Your task to perform on an android device: Search for "beats solo 3" on amazon.com, select the first entry, and add it to the cart. Image 0: 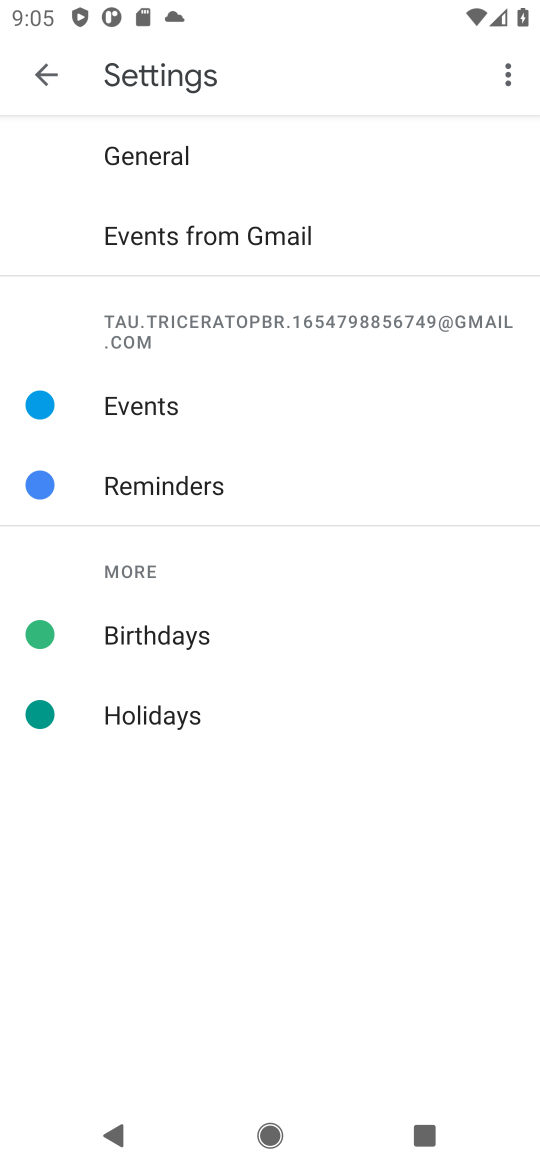
Step 0: press home button
Your task to perform on an android device: Search for "beats solo 3" on amazon.com, select the first entry, and add it to the cart. Image 1: 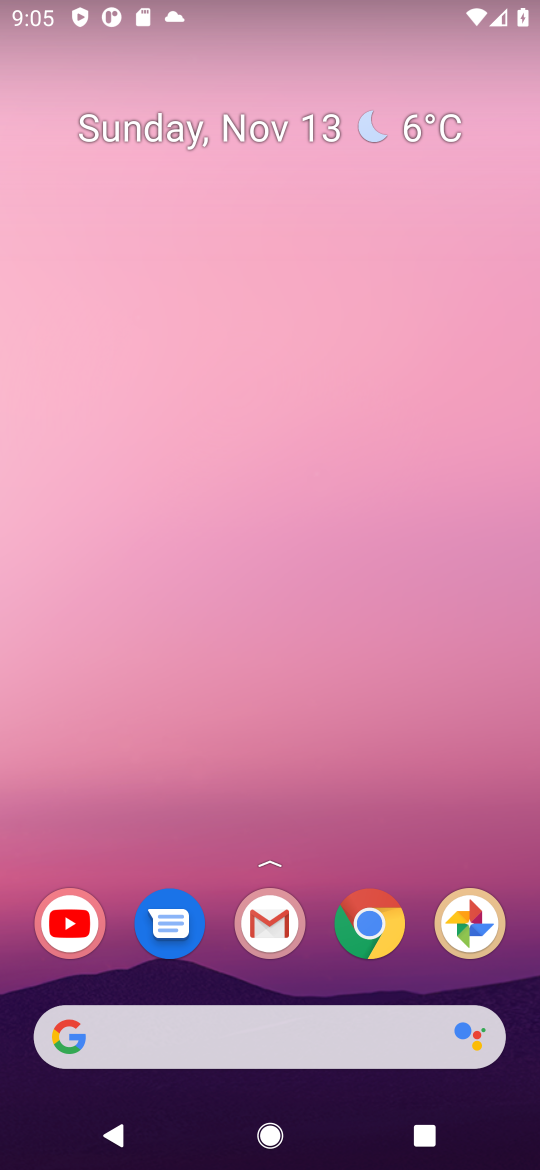
Step 1: click (372, 937)
Your task to perform on an android device: Search for "beats solo 3" on amazon.com, select the first entry, and add it to the cart. Image 2: 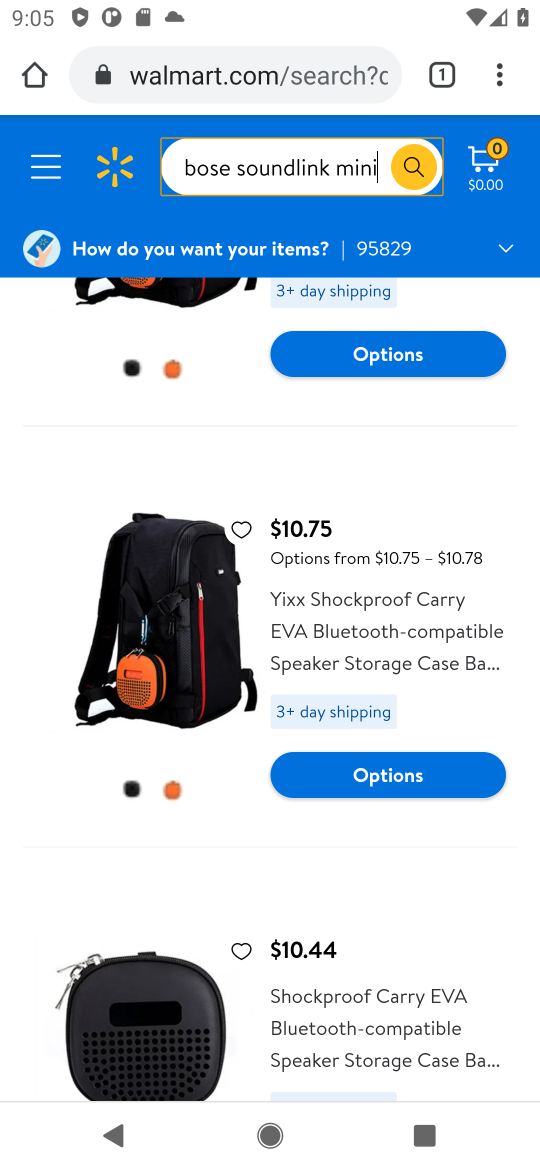
Step 2: click (349, 68)
Your task to perform on an android device: Search for "beats solo 3" on amazon.com, select the first entry, and add it to the cart. Image 3: 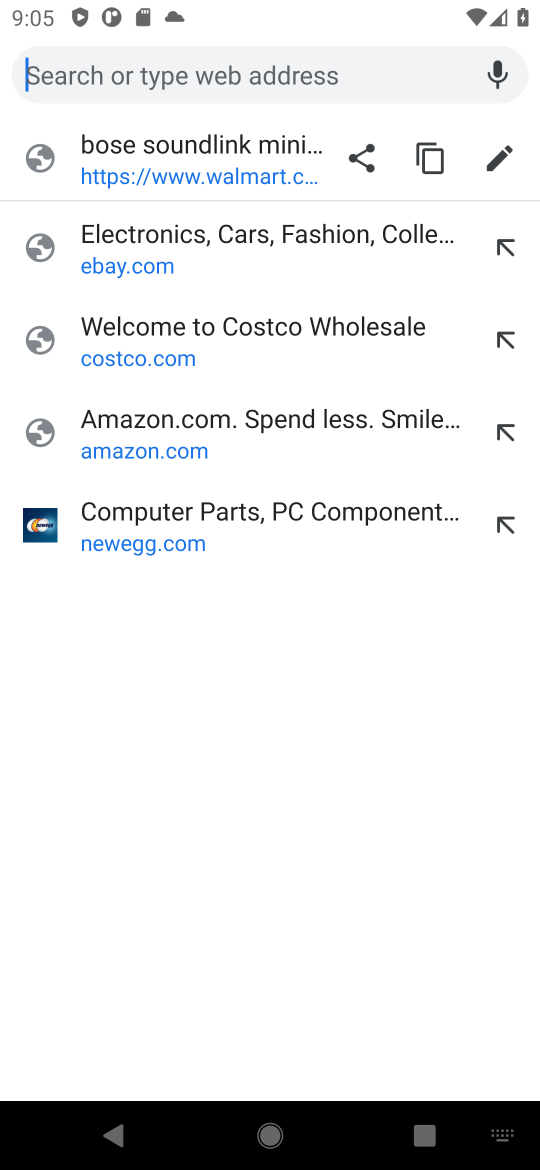
Step 3: click (185, 413)
Your task to perform on an android device: Search for "beats solo 3" on amazon.com, select the first entry, and add it to the cart. Image 4: 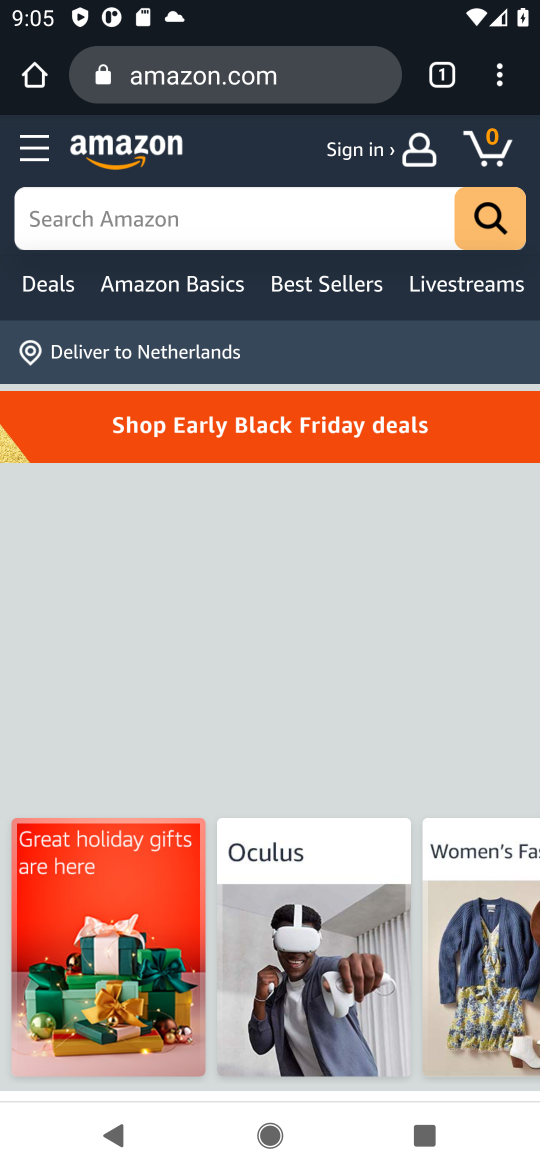
Step 4: click (253, 225)
Your task to perform on an android device: Search for "beats solo 3" on amazon.com, select the first entry, and add it to the cart. Image 5: 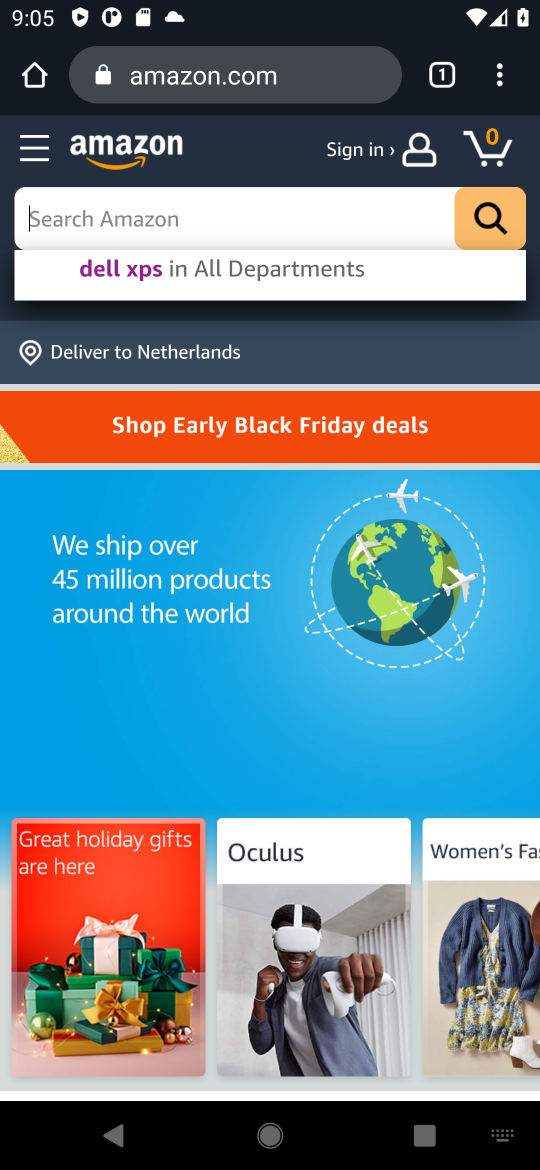
Step 5: type "beats solo 3"
Your task to perform on an android device: Search for "beats solo 3" on amazon.com, select the first entry, and add it to the cart. Image 6: 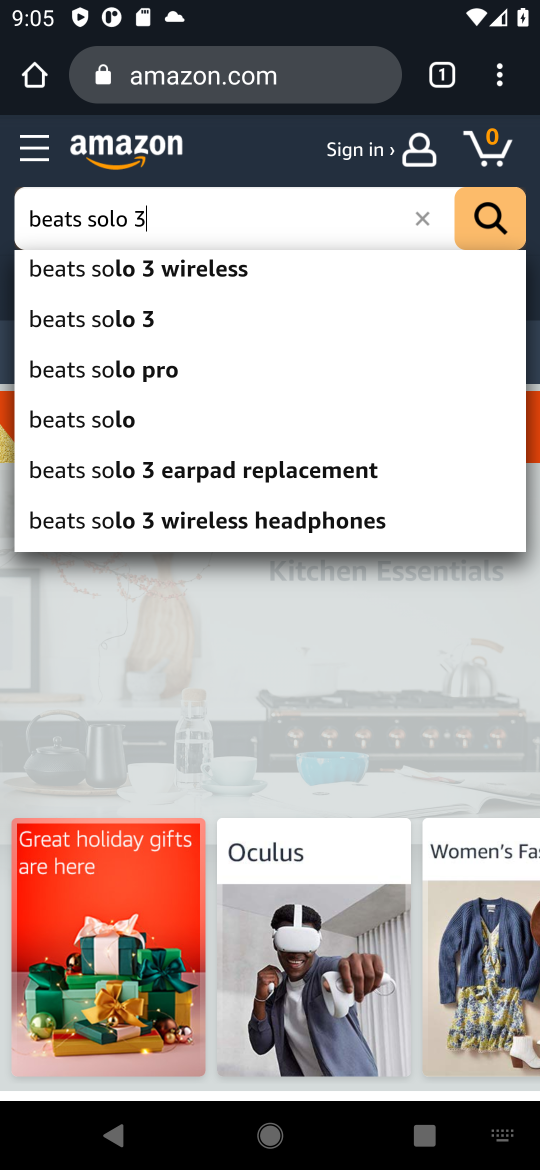
Step 6: press enter
Your task to perform on an android device: Search for "beats solo 3" on amazon.com, select the first entry, and add it to the cart. Image 7: 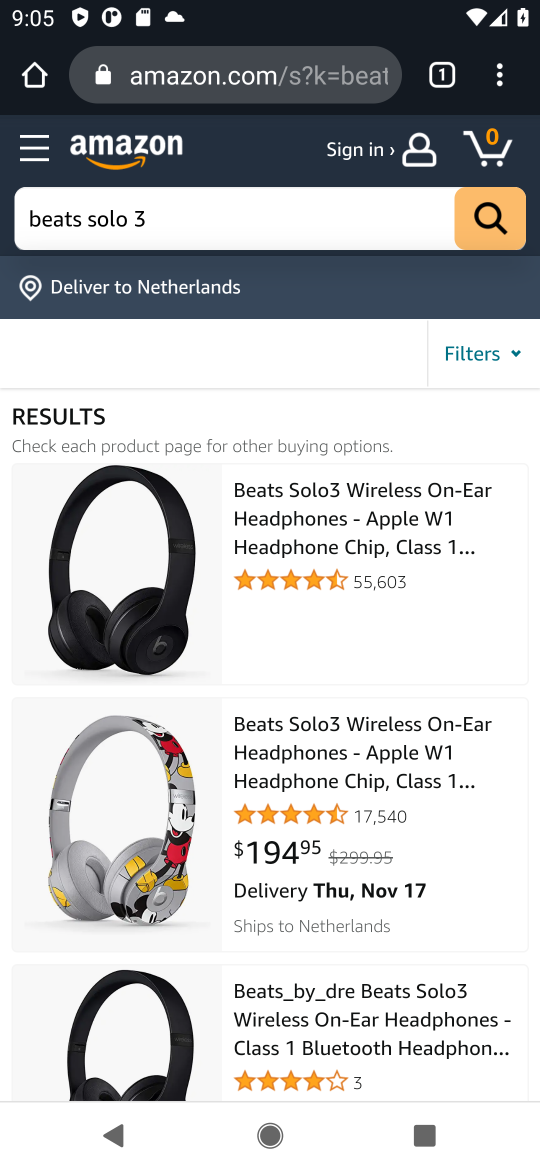
Step 7: click (136, 540)
Your task to perform on an android device: Search for "beats solo 3" on amazon.com, select the first entry, and add it to the cart. Image 8: 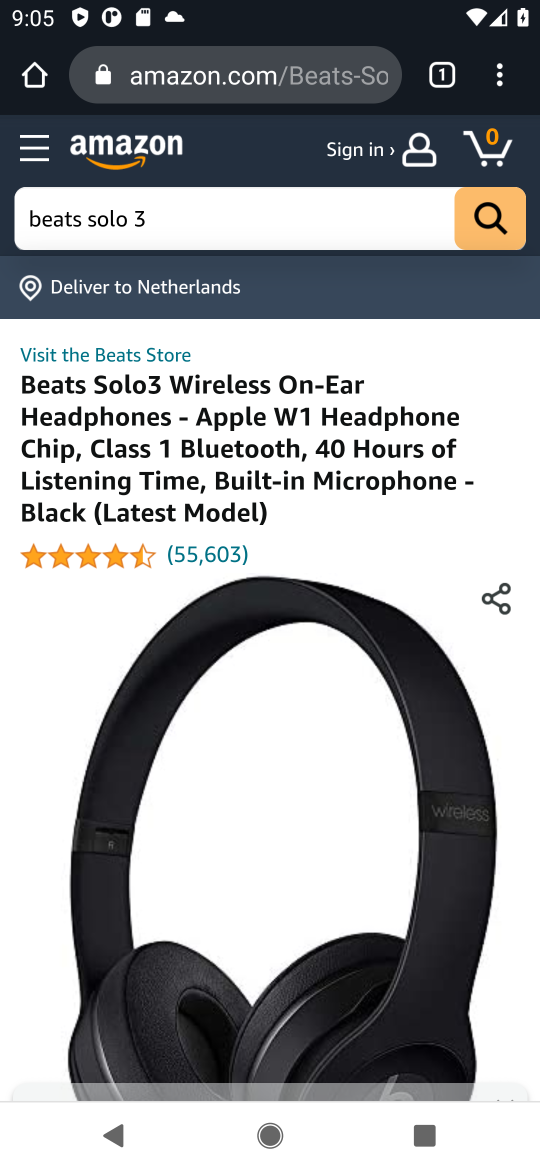
Step 8: drag from (392, 789) to (450, 173)
Your task to perform on an android device: Search for "beats solo 3" on amazon.com, select the first entry, and add it to the cart. Image 9: 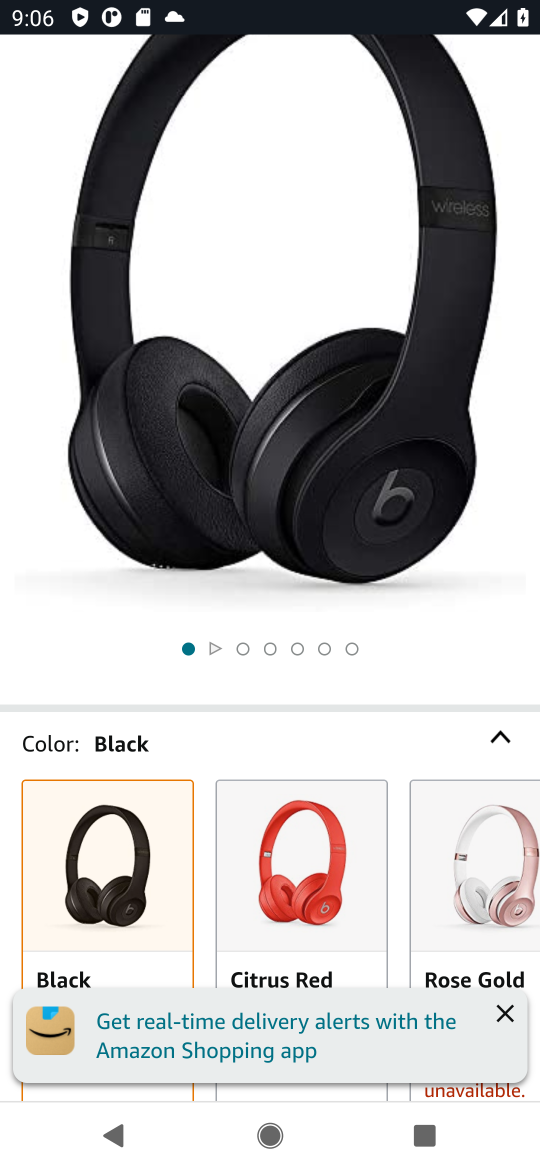
Step 9: drag from (402, 627) to (469, 131)
Your task to perform on an android device: Search for "beats solo 3" on amazon.com, select the first entry, and add it to the cart. Image 10: 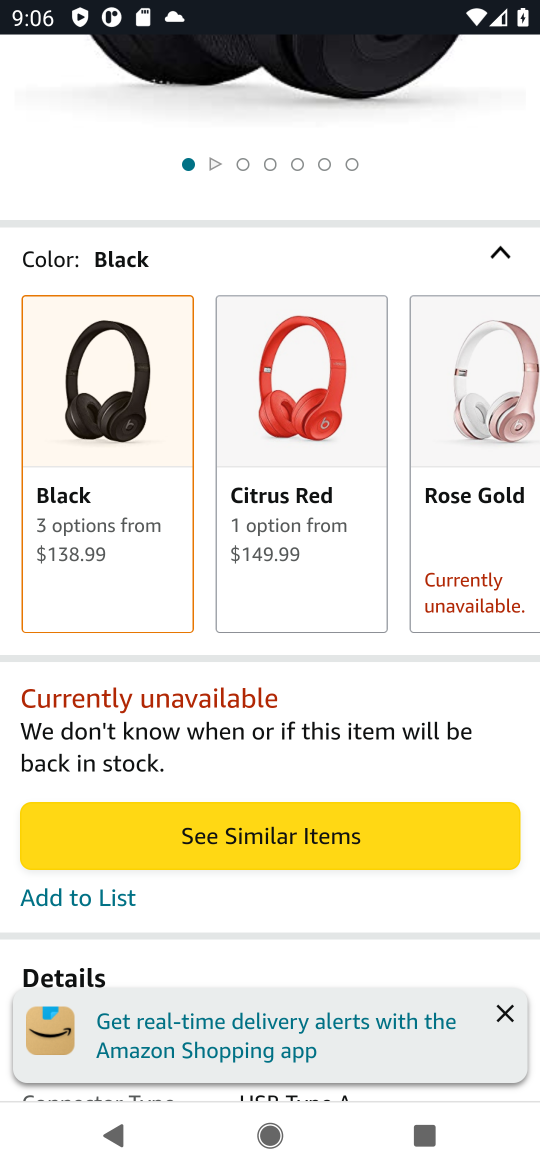
Step 10: press back button
Your task to perform on an android device: Search for "beats solo 3" on amazon.com, select the first entry, and add it to the cart. Image 11: 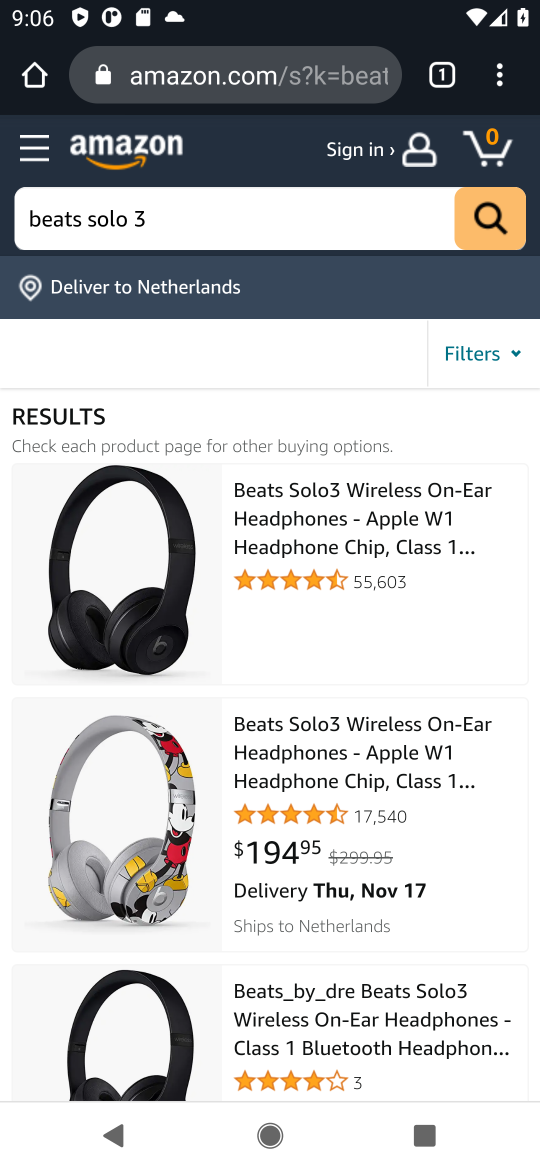
Step 11: click (134, 815)
Your task to perform on an android device: Search for "beats solo 3" on amazon.com, select the first entry, and add it to the cart. Image 12: 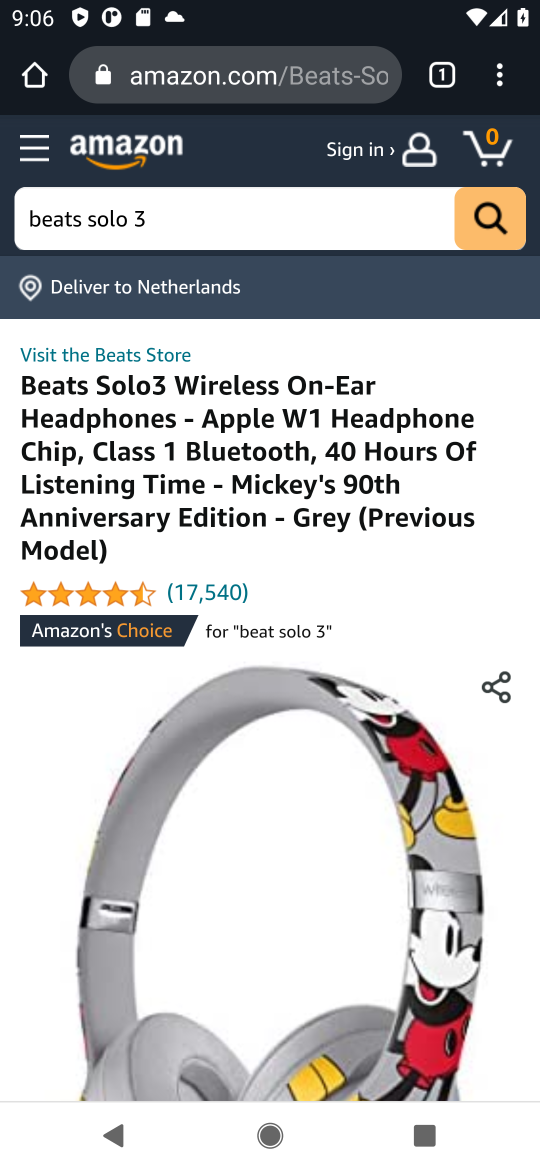
Step 12: drag from (354, 668) to (444, 208)
Your task to perform on an android device: Search for "beats solo 3" on amazon.com, select the first entry, and add it to the cart. Image 13: 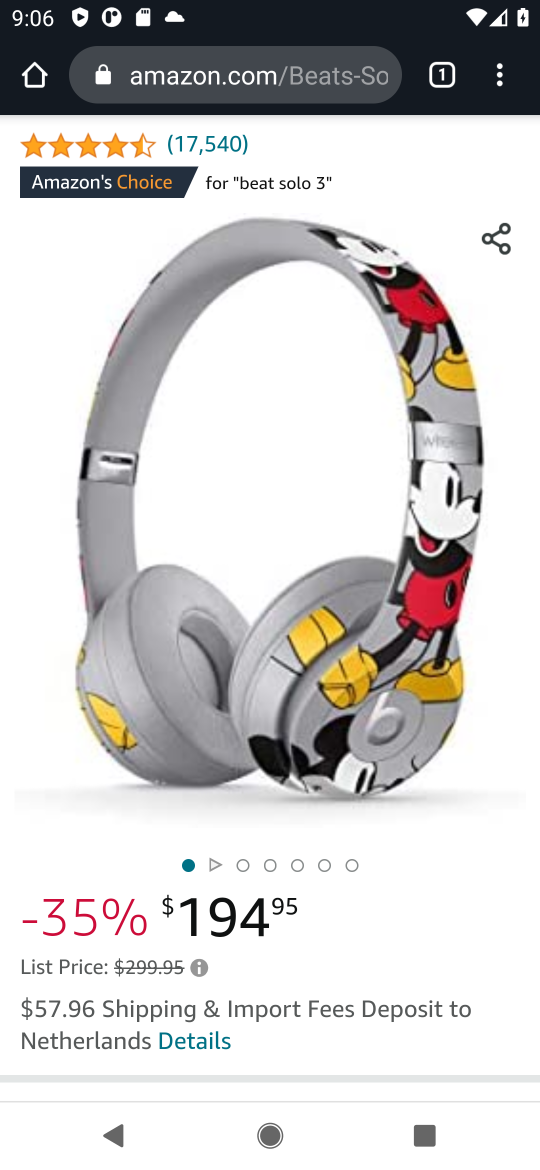
Step 13: drag from (413, 862) to (501, 312)
Your task to perform on an android device: Search for "beats solo 3" on amazon.com, select the first entry, and add it to the cart. Image 14: 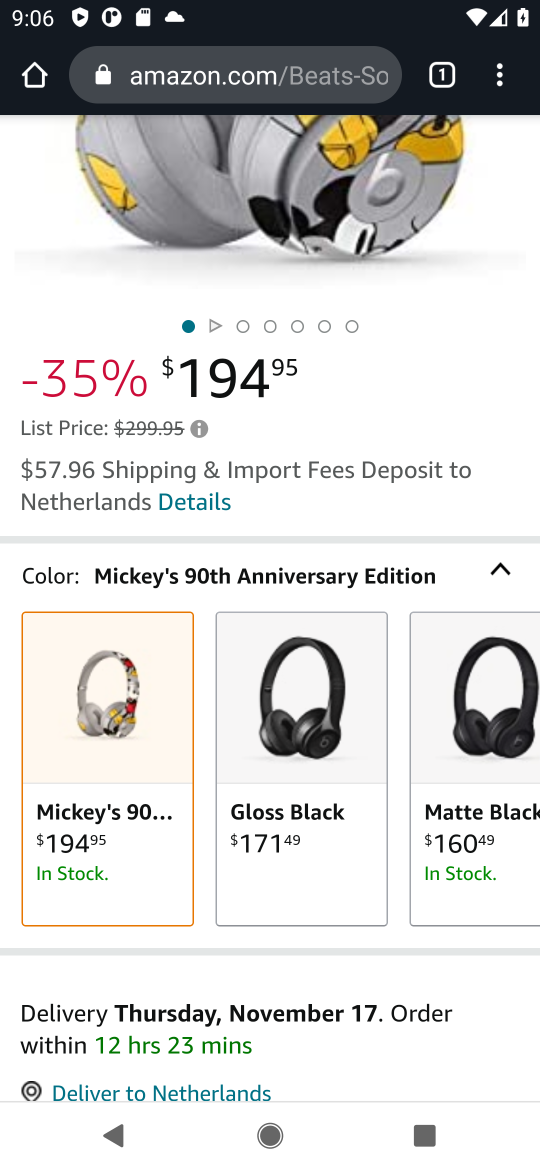
Step 14: drag from (408, 878) to (487, 271)
Your task to perform on an android device: Search for "beats solo 3" on amazon.com, select the first entry, and add it to the cart. Image 15: 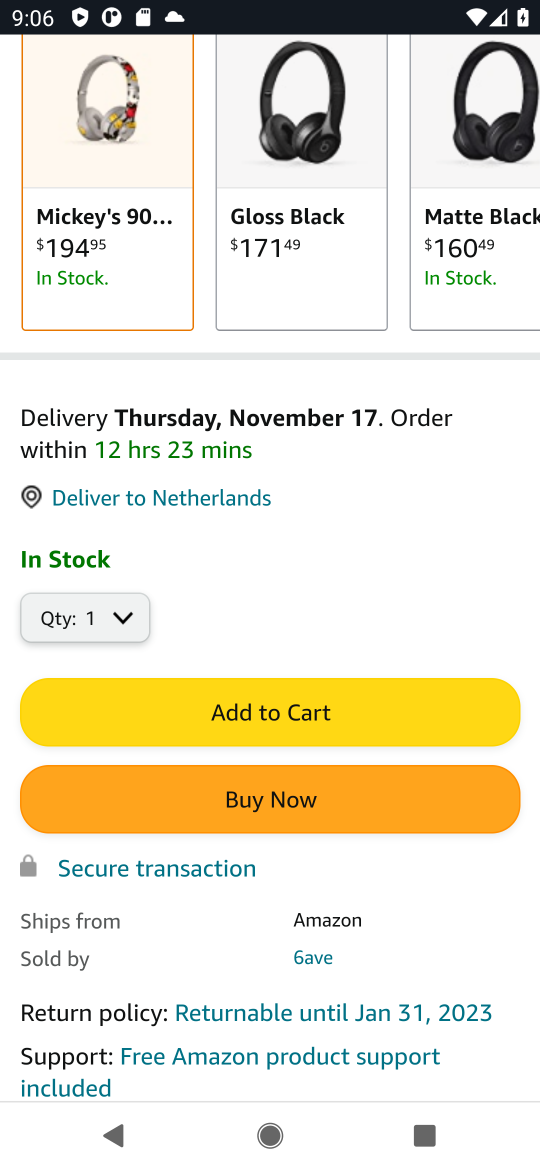
Step 15: click (285, 725)
Your task to perform on an android device: Search for "beats solo 3" on amazon.com, select the first entry, and add it to the cart. Image 16: 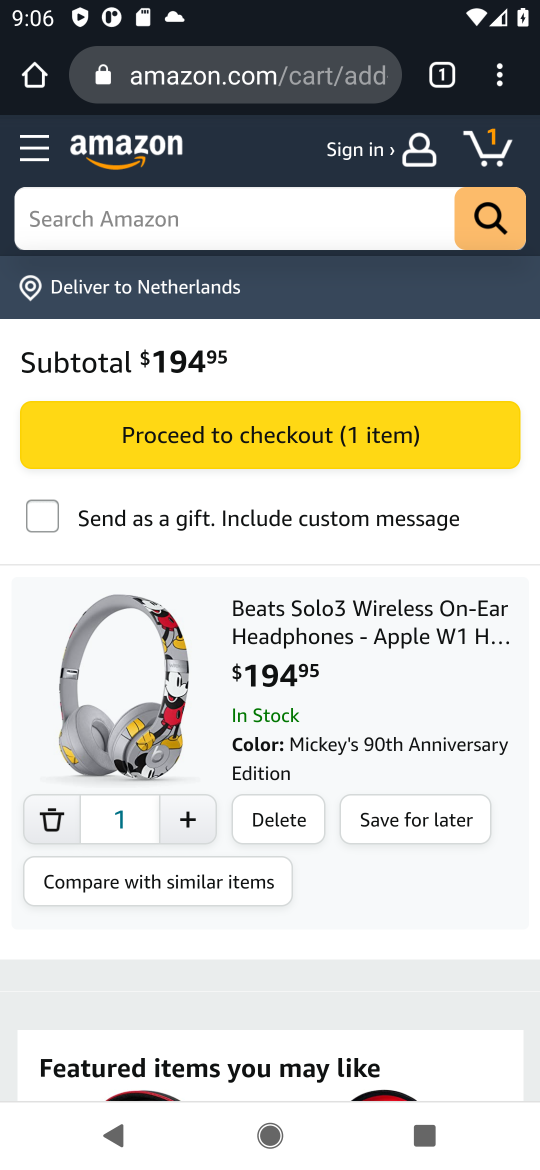
Step 16: task complete